Your task to perform on an android device: check out phone information Image 0: 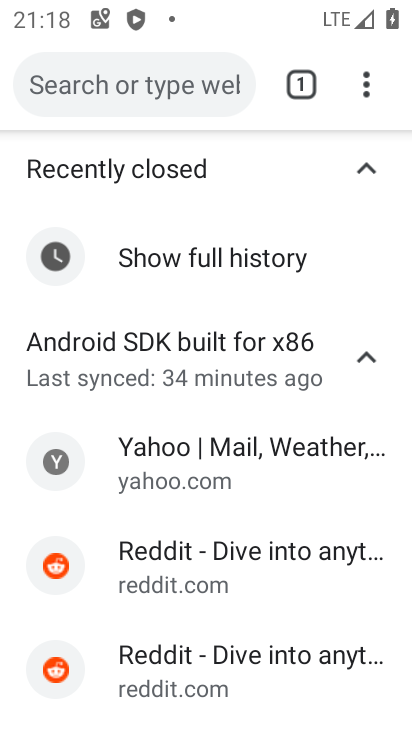
Step 0: press home button
Your task to perform on an android device: check out phone information Image 1: 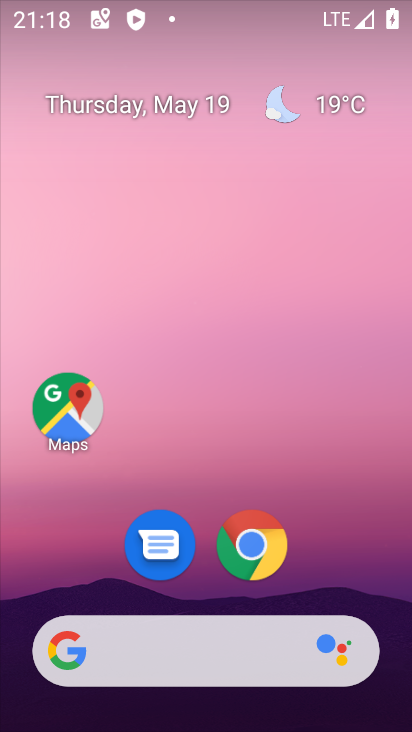
Step 1: drag from (365, 540) to (269, 4)
Your task to perform on an android device: check out phone information Image 2: 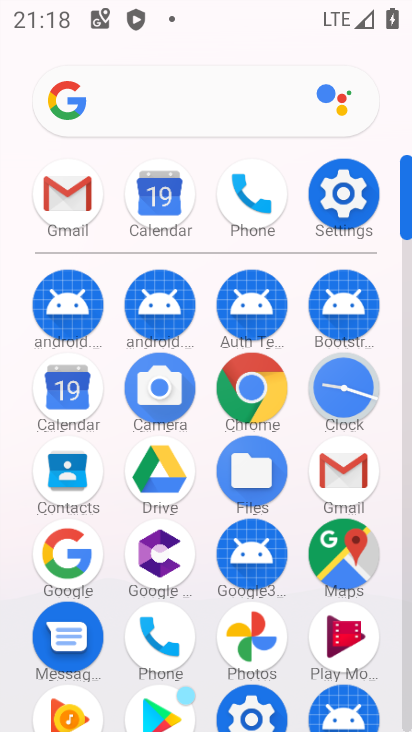
Step 2: click (322, 195)
Your task to perform on an android device: check out phone information Image 3: 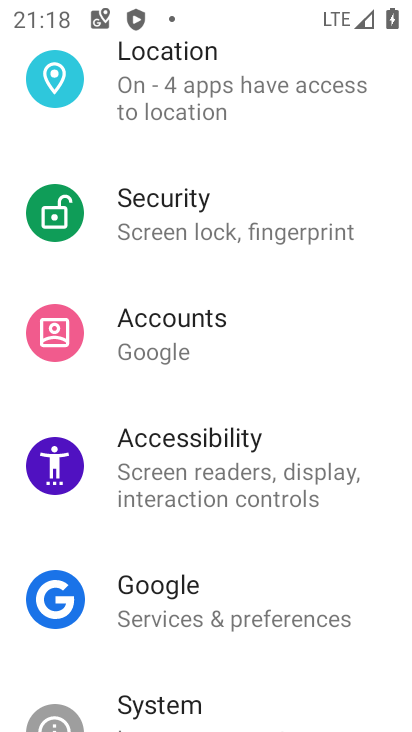
Step 3: click (290, 142)
Your task to perform on an android device: check out phone information Image 4: 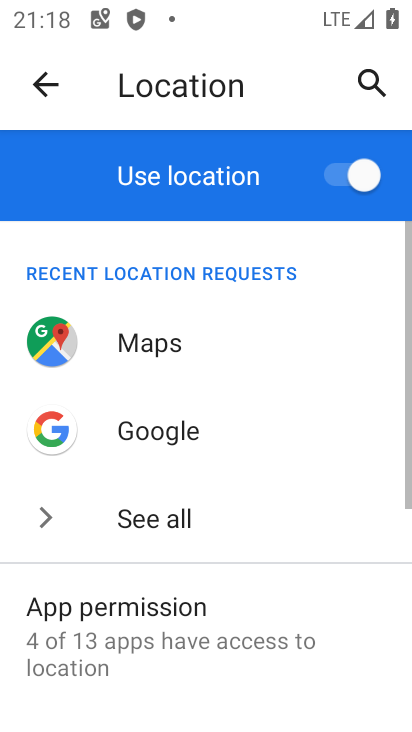
Step 4: click (247, 519)
Your task to perform on an android device: check out phone information Image 5: 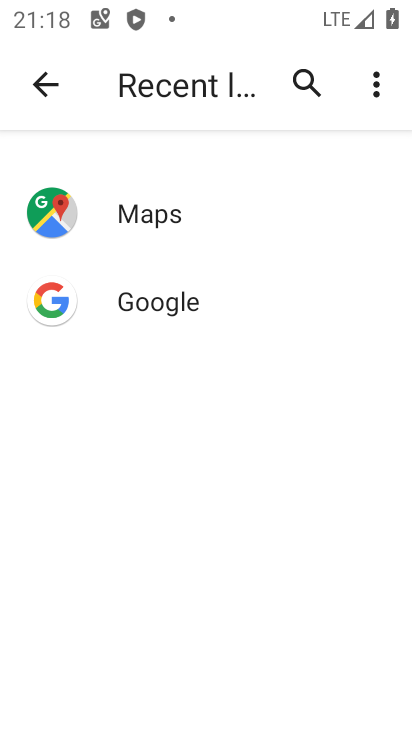
Step 5: task complete